Your task to perform on an android device: open wifi settings Image 0: 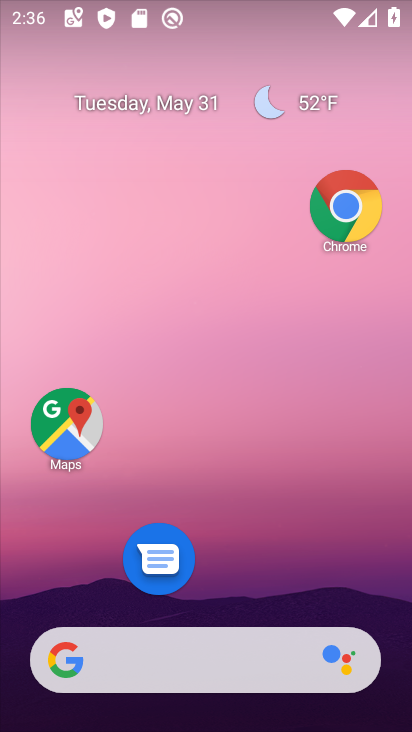
Step 0: drag from (296, 562) to (278, 36)
Your task to perform on an android device: open wifi settings Image 1: 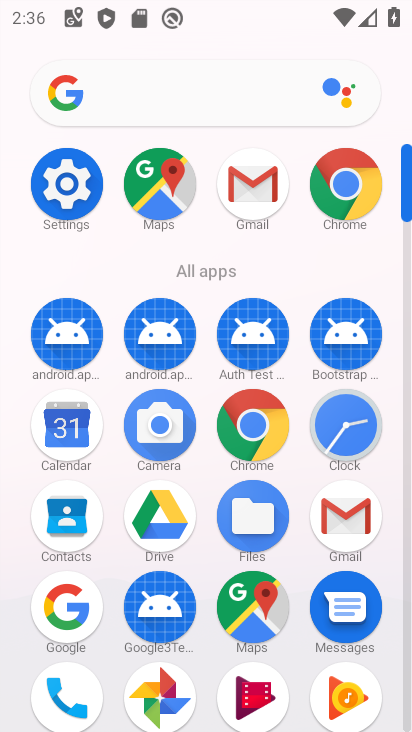
Step 1: drag from (310, 269) to (273, 2)
Your task to perform on an android device: open wifi settings Image 2: 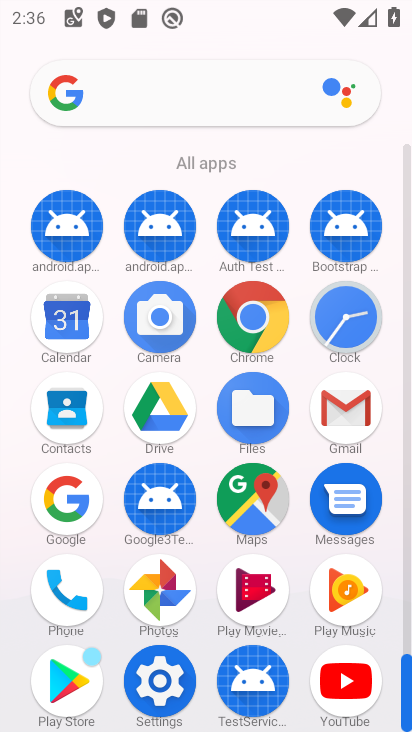
Step 2: click (161, 645)
Your task to perform on an android device: open wifi settings Image 3: 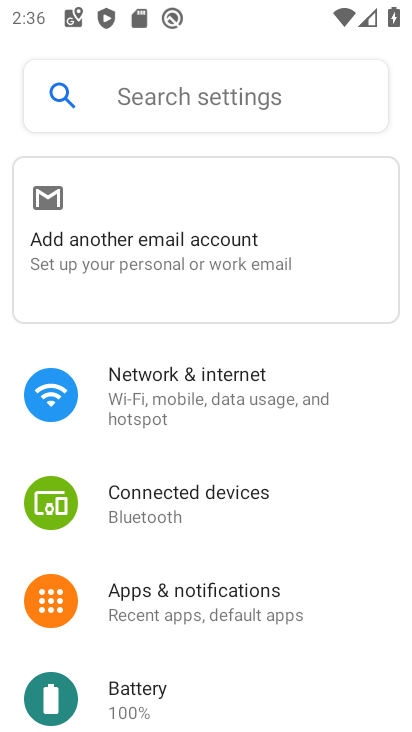
Step 3: click (241, 388)
Your task to perform on an android device: open wifi settings Image 4: 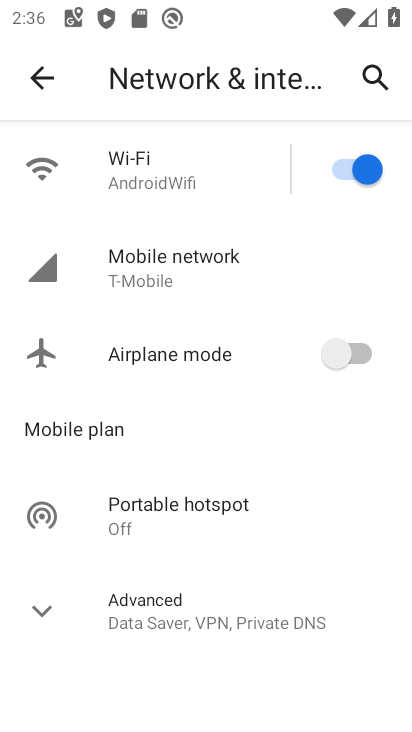
Step 4: click (186, 186)
Your task to perform on an android device: open wifi settings Image 5: 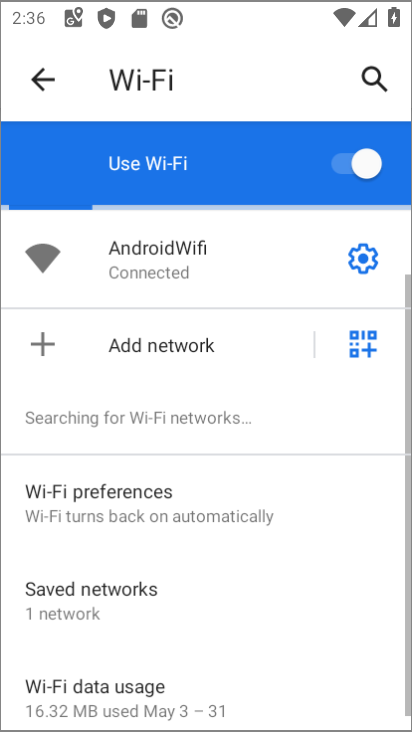
Step 5: task complete